Your task to perform on an android device: Open CNN.com Image 0: 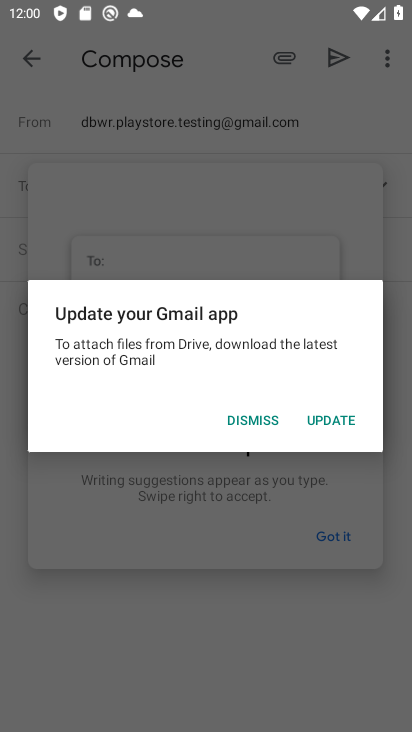
Step 0: press home button
Your task to perform on an android device: Open CNN.com Image 1: 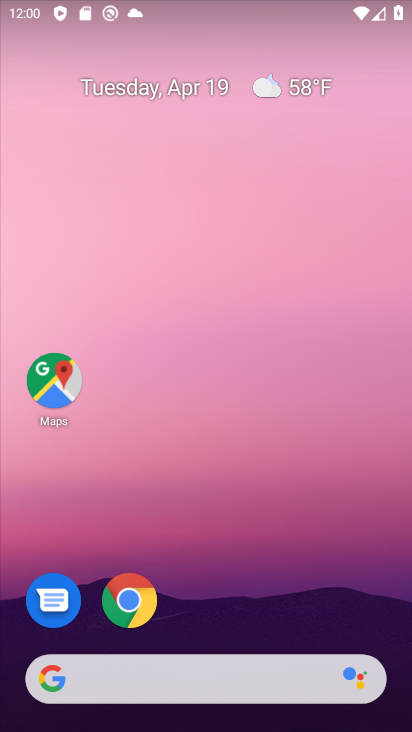
Step 1: drag from (261, 697) to (399, 182)
Your task to perform on an android device: Open CNN.com Image 2: 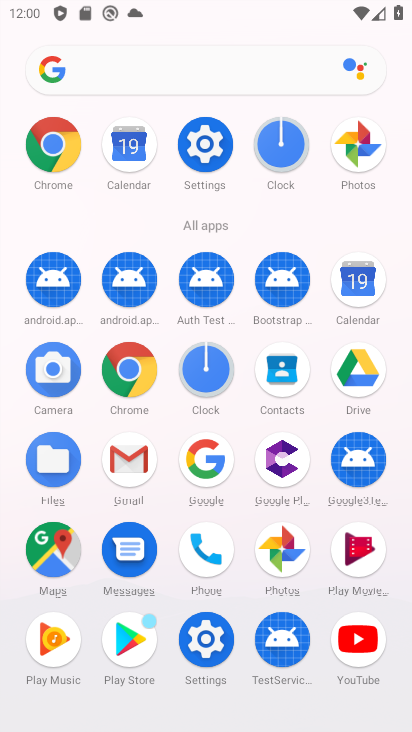
Step 2: click (59, 166)
Your task to perform on an android device: Open CNN.com Image 3: 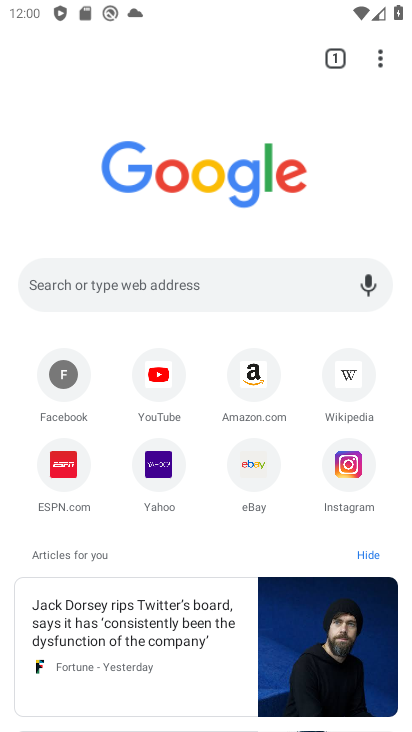
Step 3: click (136, 283)
Your task to perform on an android device: Open CNN.com Image 4: 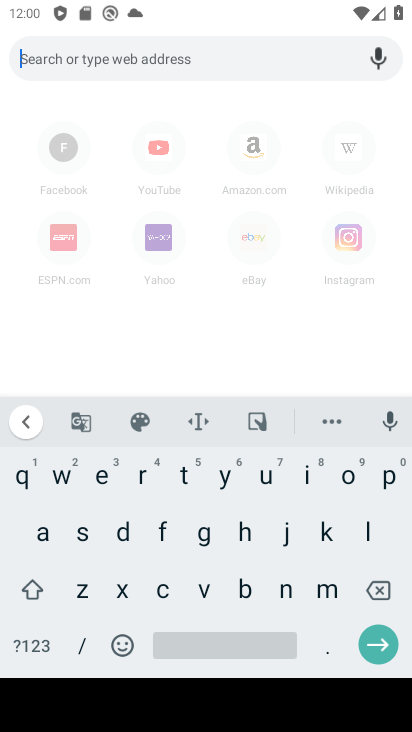
Step 4: click (159, 595)
Your task to perform on an android device: Open CNN.com Image 5: 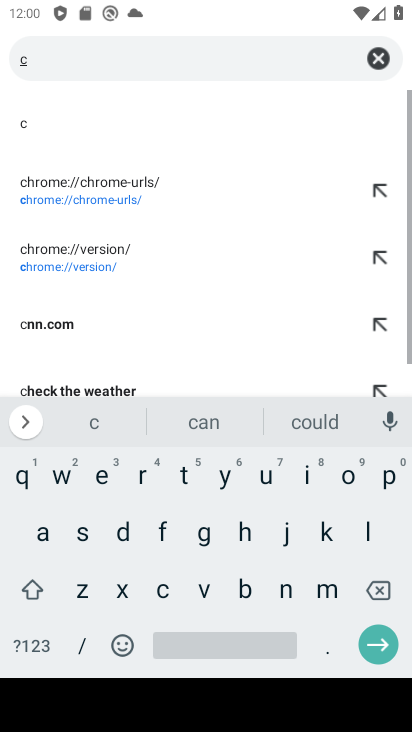
Step 5: click (283, 598)
Your task to perform on an android device: Open CNN.com Image 6: 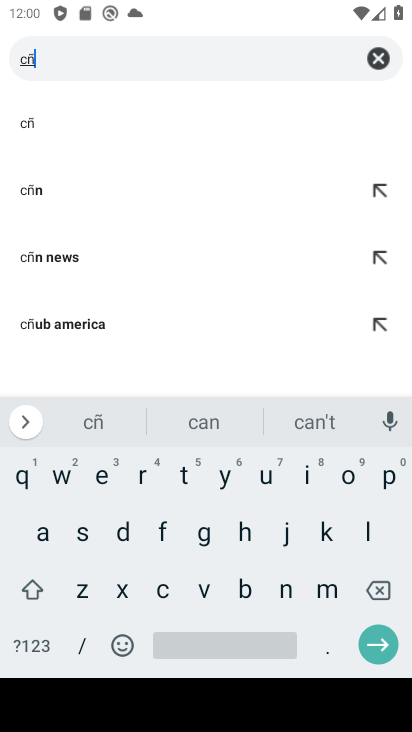
Step 6: click (373, 596)
Your task to perform on an android device: Open CNN.com Image 7: 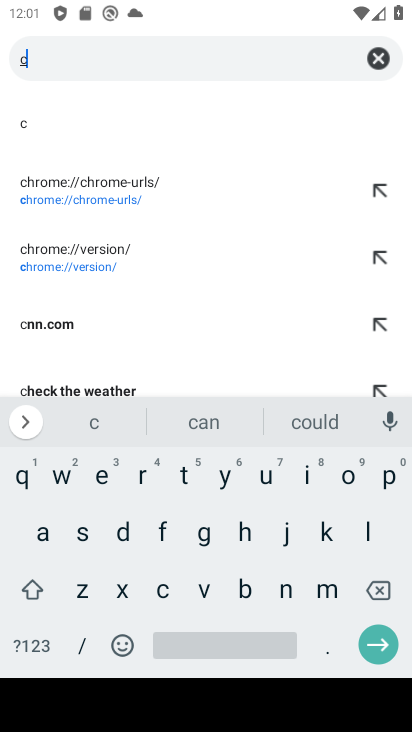
Step 7: click (284, 599)
Your task to perform on an android device: Open CNN.com Image 8: 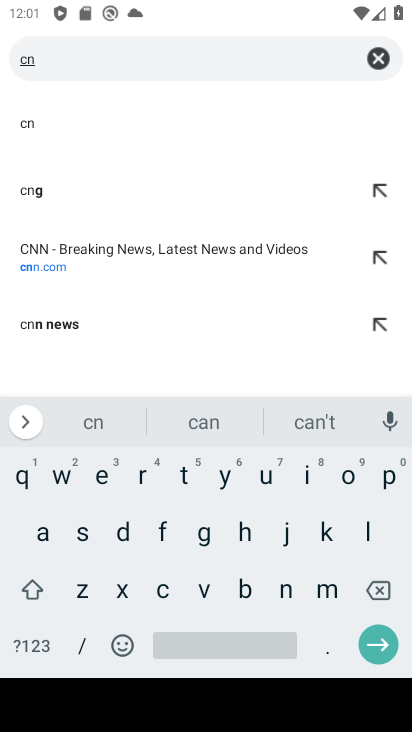
Step 8: click (287, 602)
Your task to perform on an android device: Open CNN.com Image 9: 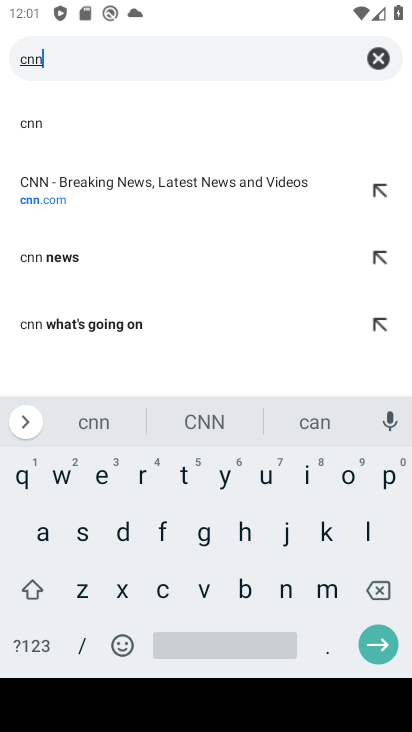
Step 9: click (327, 651)
Your task to perform on an android device: Open CNN.com Image 10: 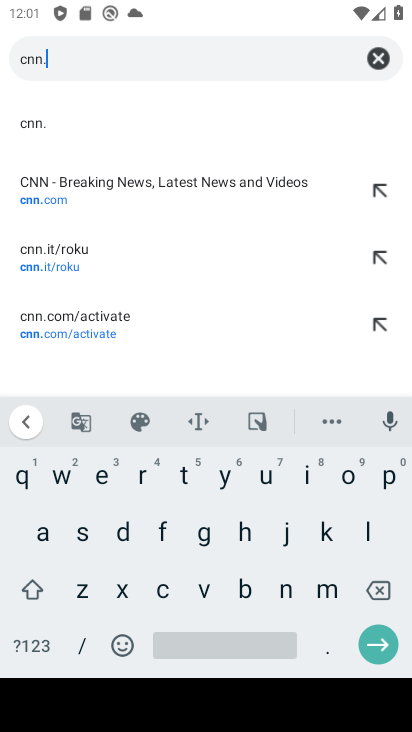
Step 10: click (58, 206)
Your task to perform on an android device: Open CNN.com Image 11: 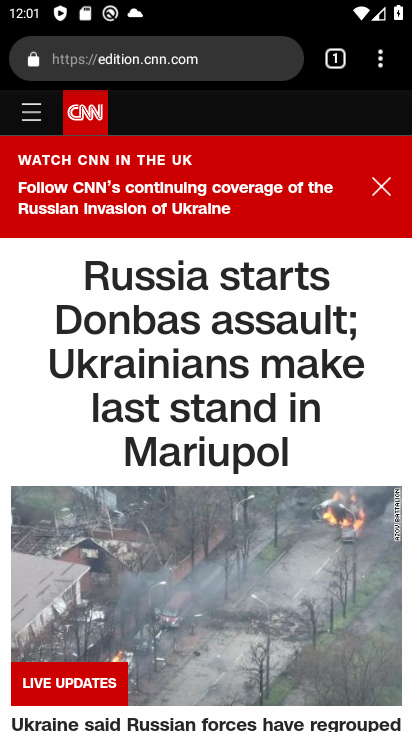
Step 11: task complete